Your task to perform on an android device: turn pop-ups off in chrome Image 0: 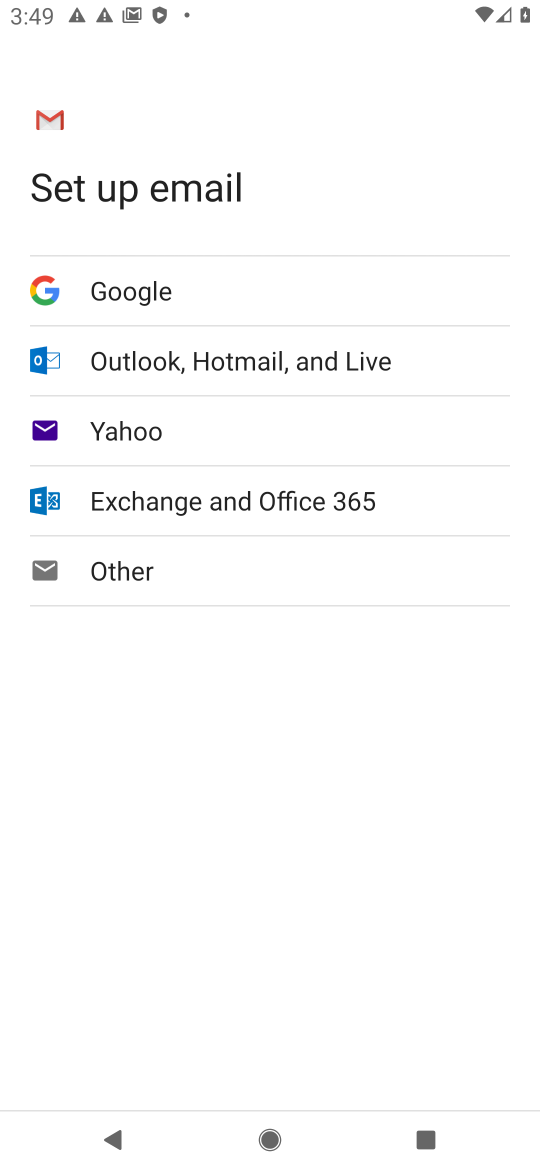
Step 0: press home button
Your task to perform on an android device: turn pop-ups off in chrome Image 1: 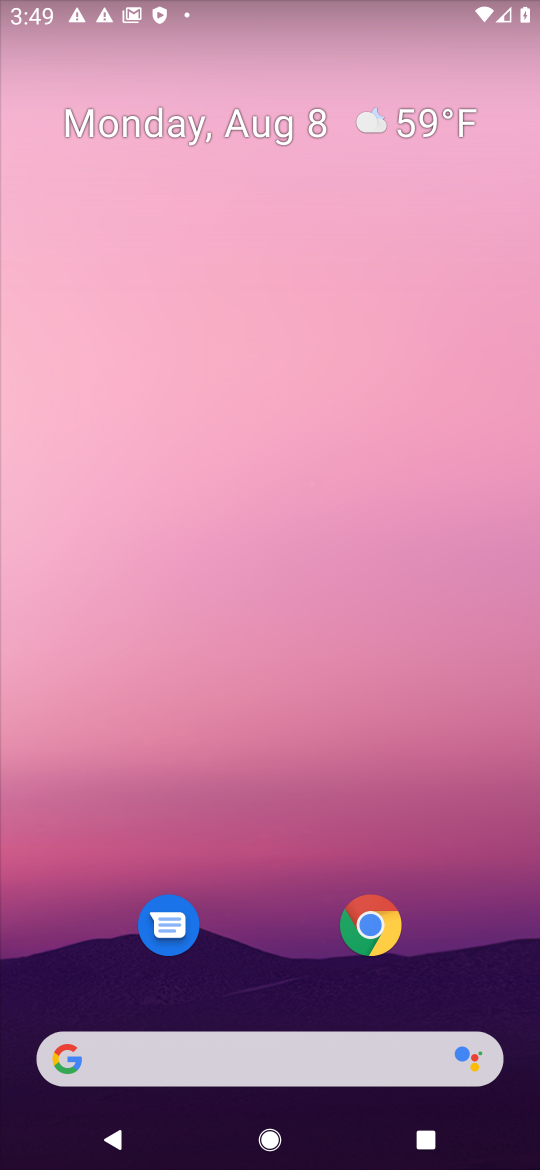
Step 1: click (371, 920)
Your task to perform on an android device: turn pop-ups off in chrome Image 2: 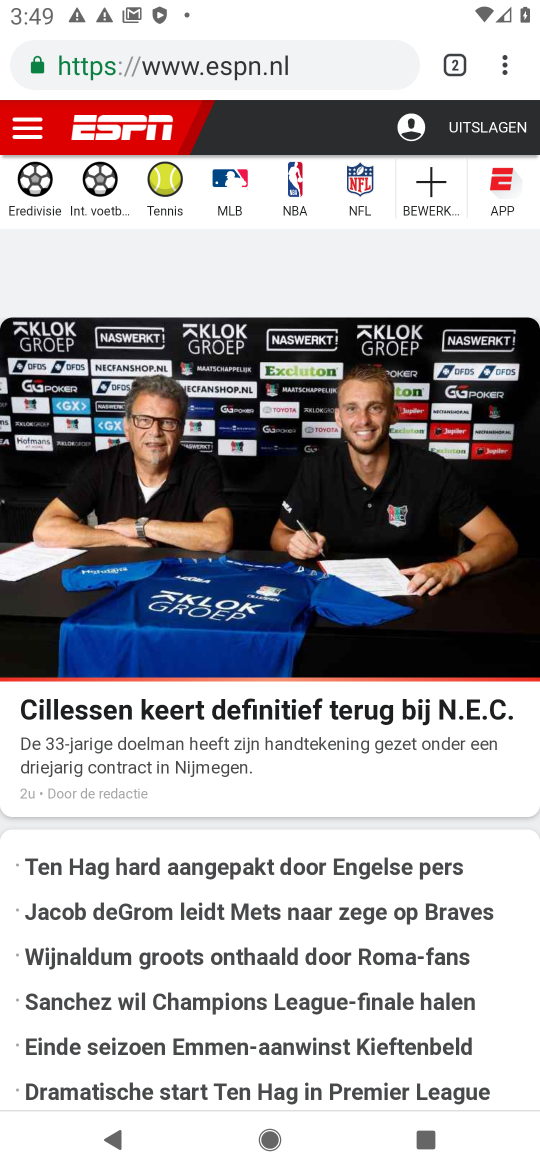
Step 2: drag from (509, 73) to (275, 718)
Your task to perform on an android device: turn pop-ups off in chrome Image 3: 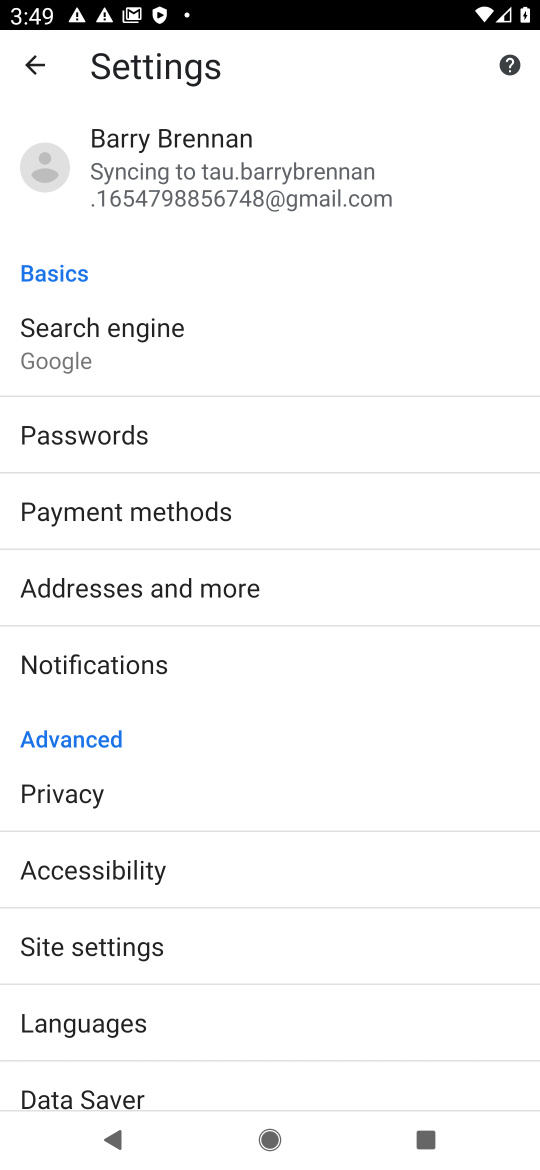
Step 3: click (108, 945)
Your task to perform on an android device: turn pop-ups off in chrome Image 4: 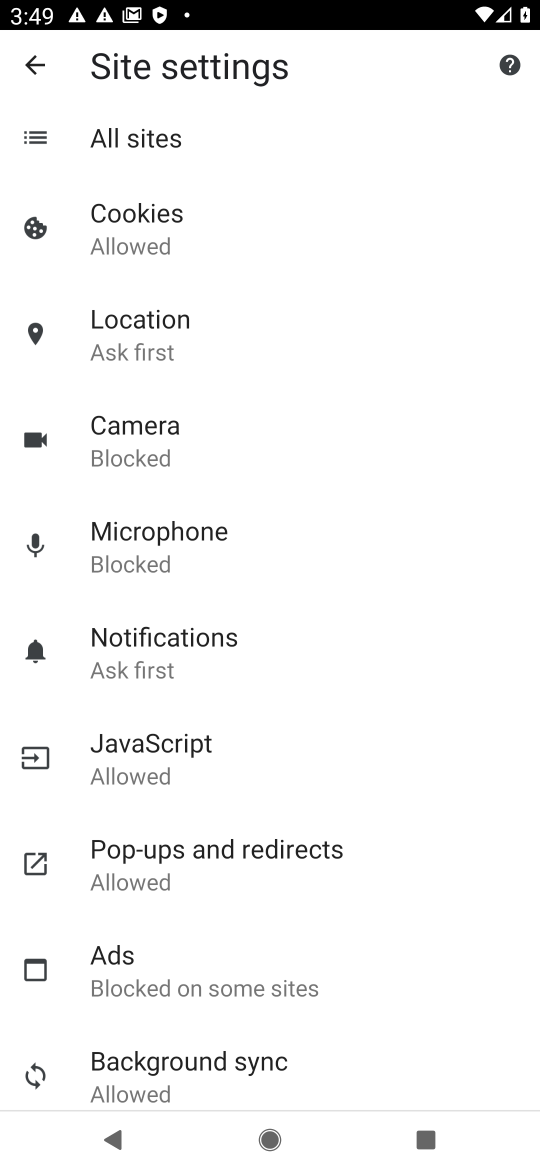
Step 4: click (156, 850)
Your task to perform on an android device: turn pop-ups off in chrome Image 5: 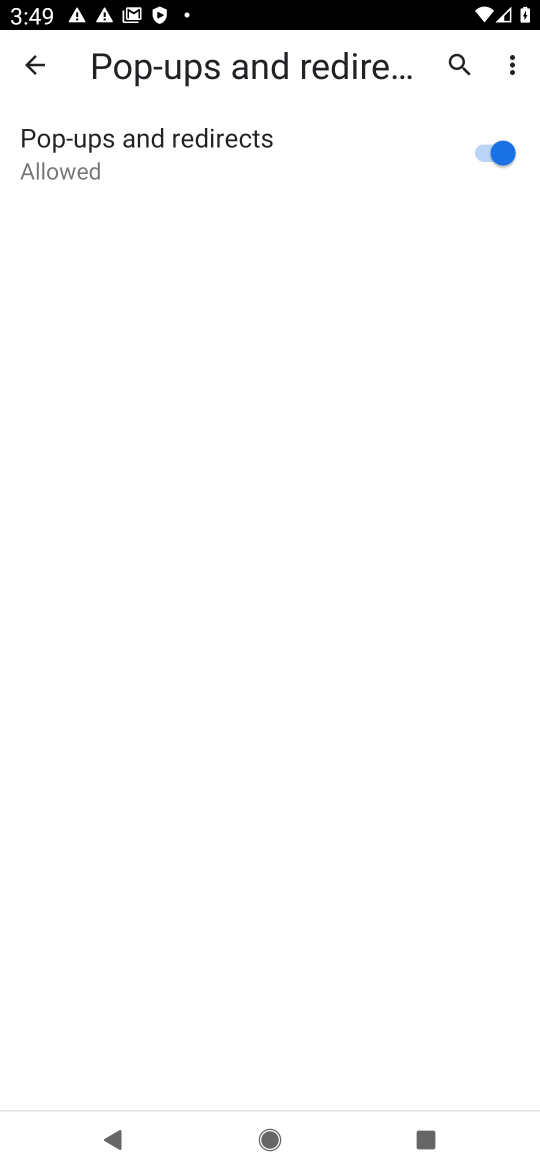
Step 5: click (482, 149)
Your task to perform on an android device: turn pop-ups off in chrome Image 6: 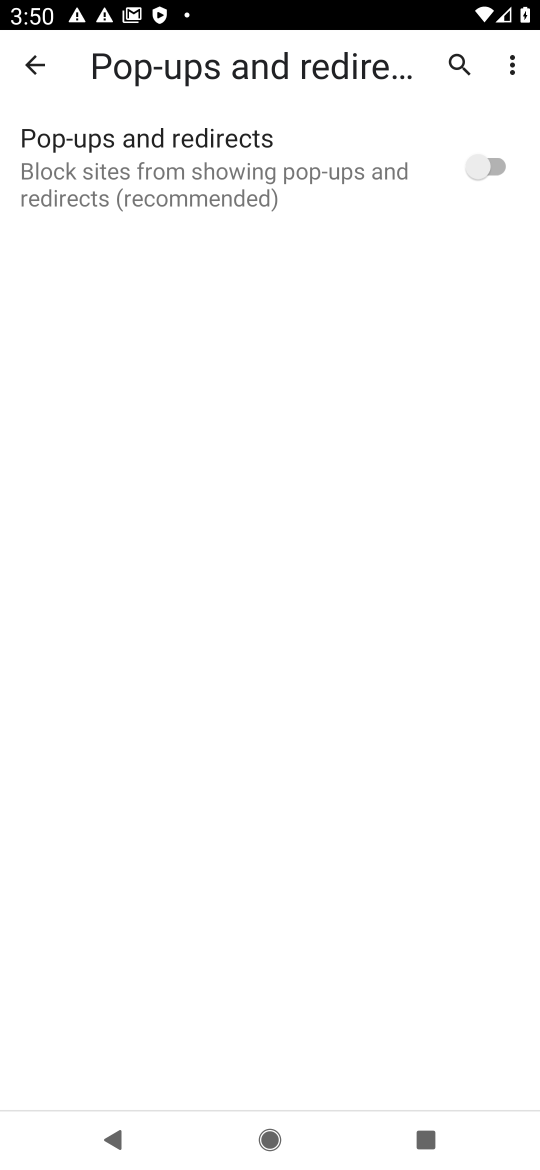
Step 6: task complete